Your task to perform on an android device: install app "Adobe Express: Graphic Design" Image 0: 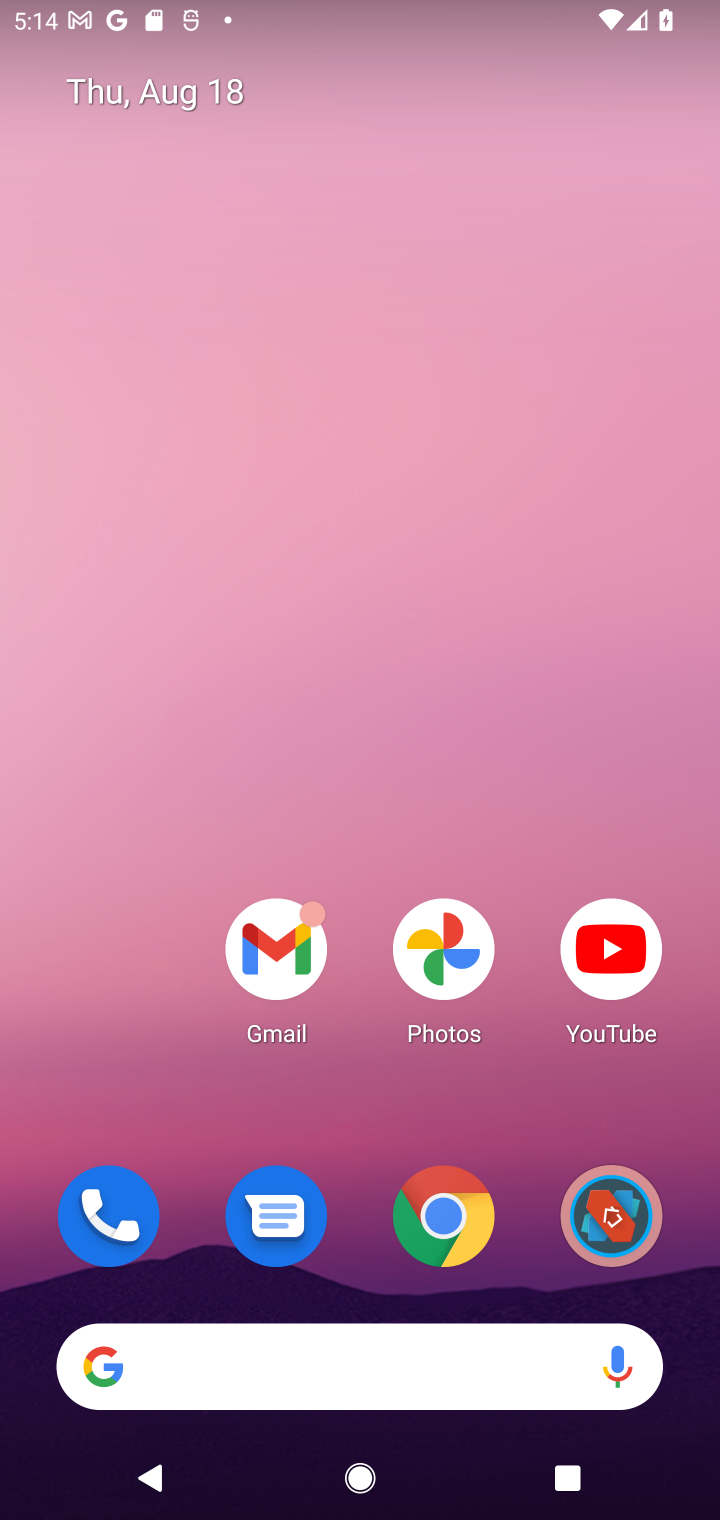
Step 0: drag from (532, 1284) to (499, 193)
Your task to perform on an android device: install app "Adobe Express: Graphic Design" Image 1: 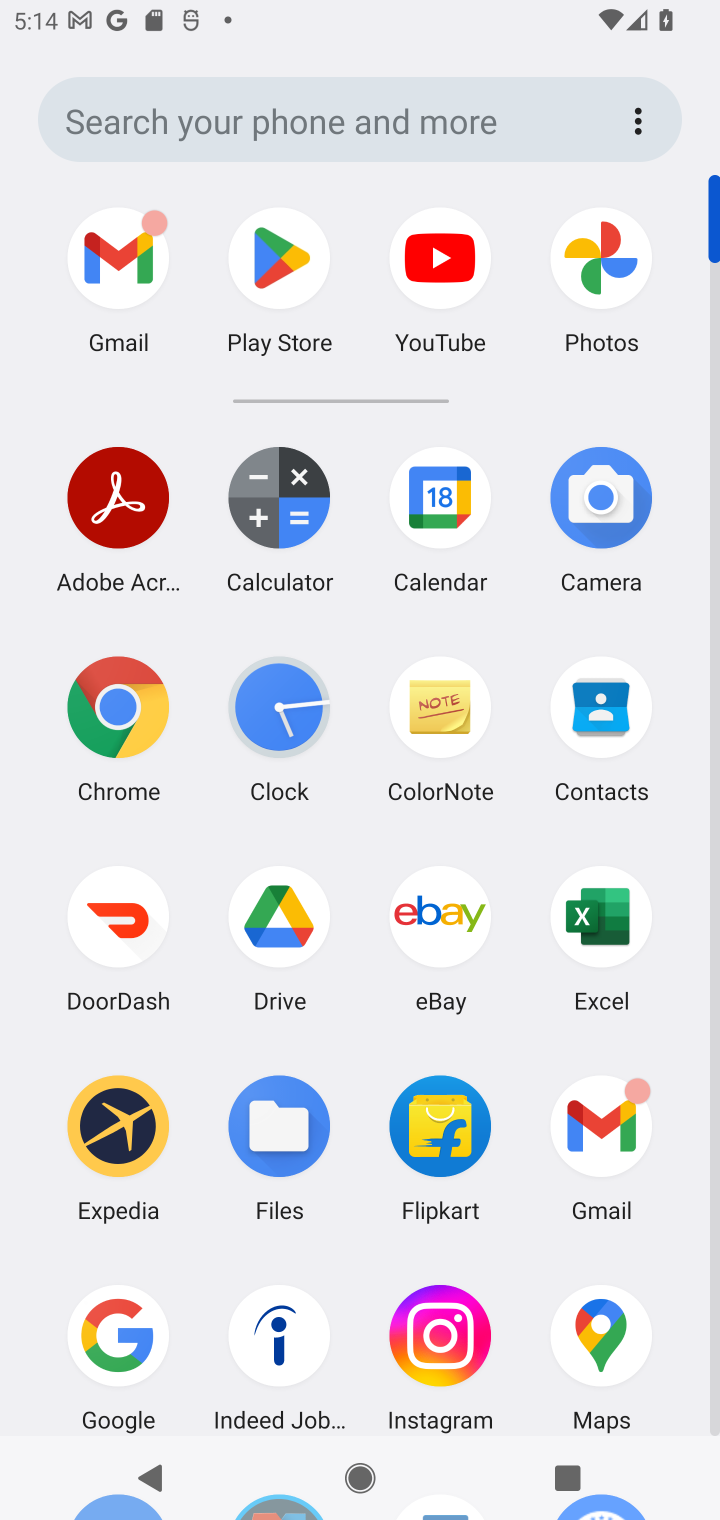
Step 1: drag from (526, 1266) to (498, 475)
Your task to perform on an android device: install app "Adobe Express: Graphic Design" Image 2: 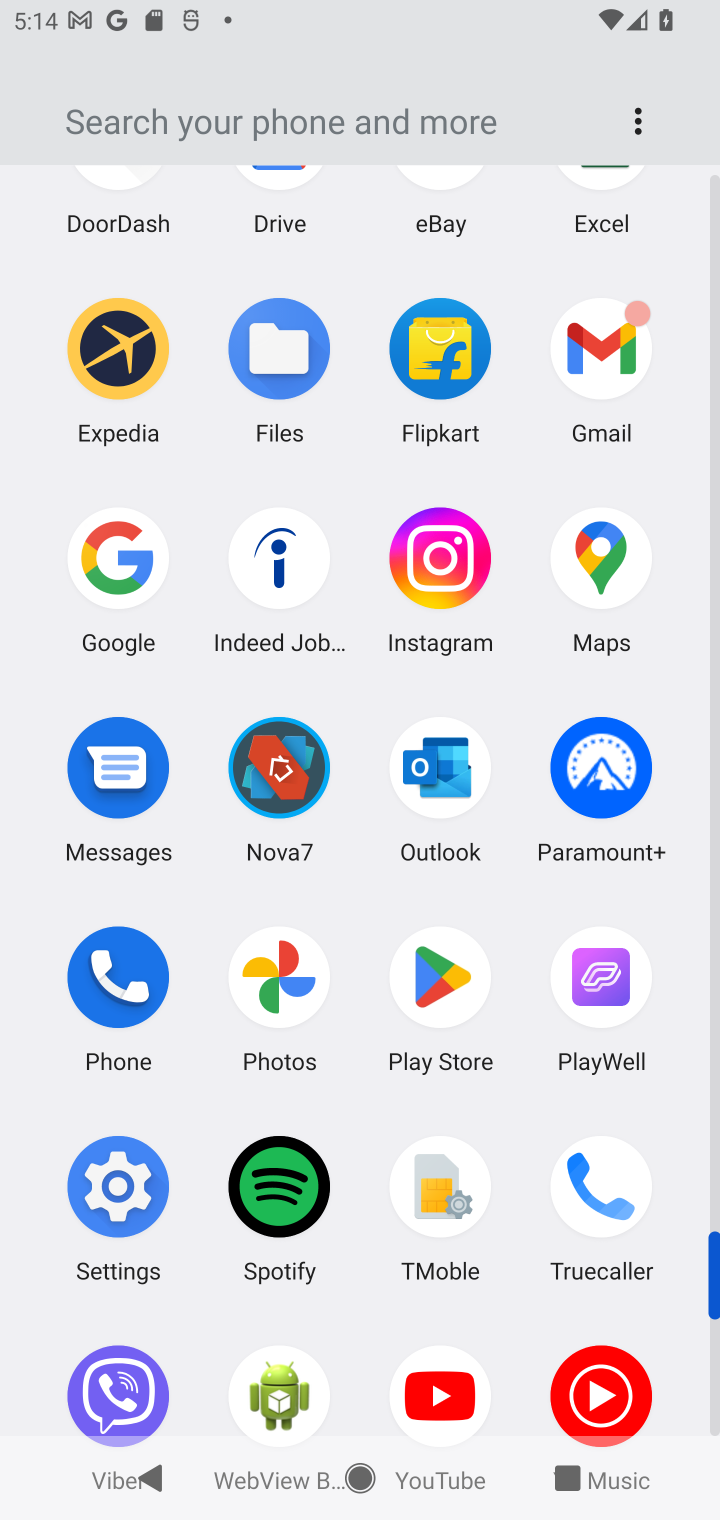
Step 2: click (440, 979)
Your task to perform on an android device: install app "Adobe Express: Graphic Design" Image 3: 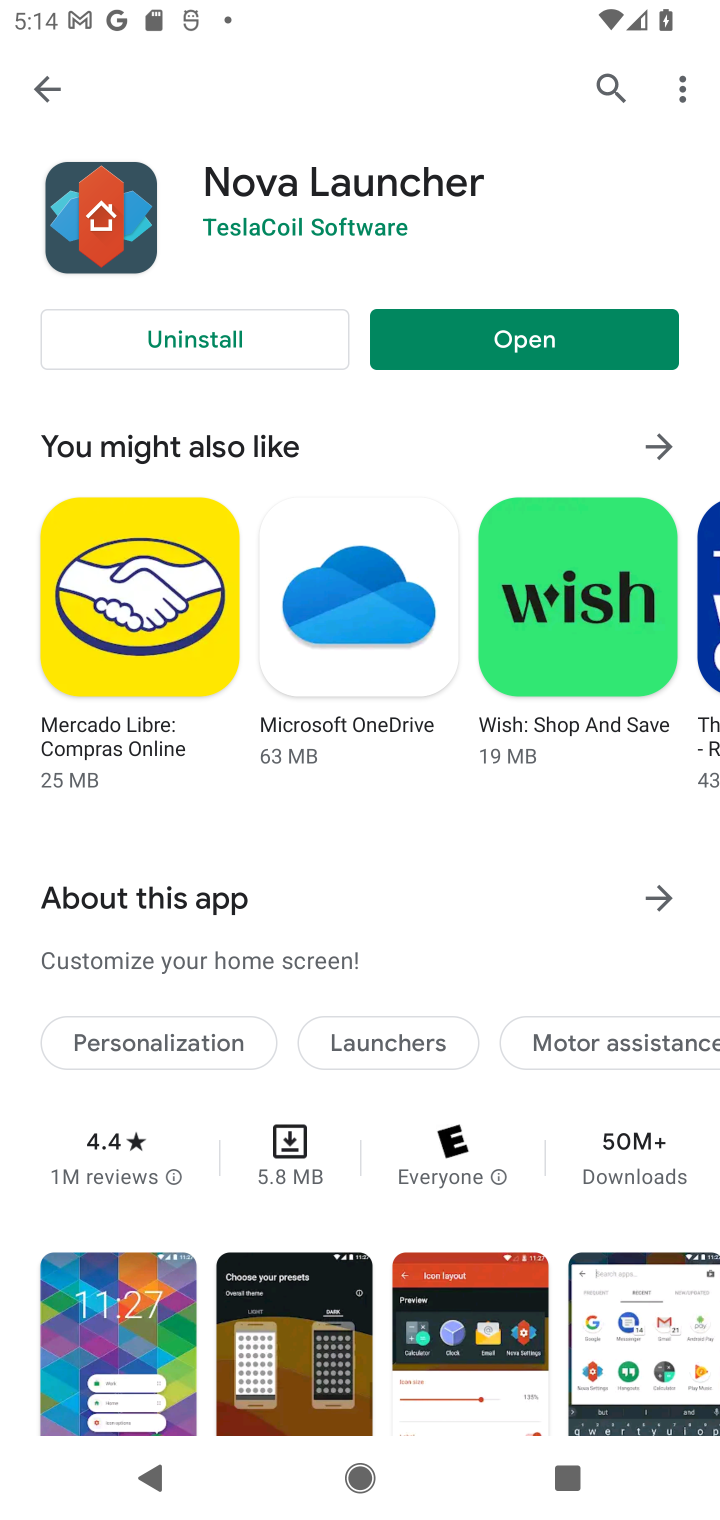
Step 3: click (603, 85)
Your task to perform on an android device: install app "Adobe Express: Graphic Design" Image 4: 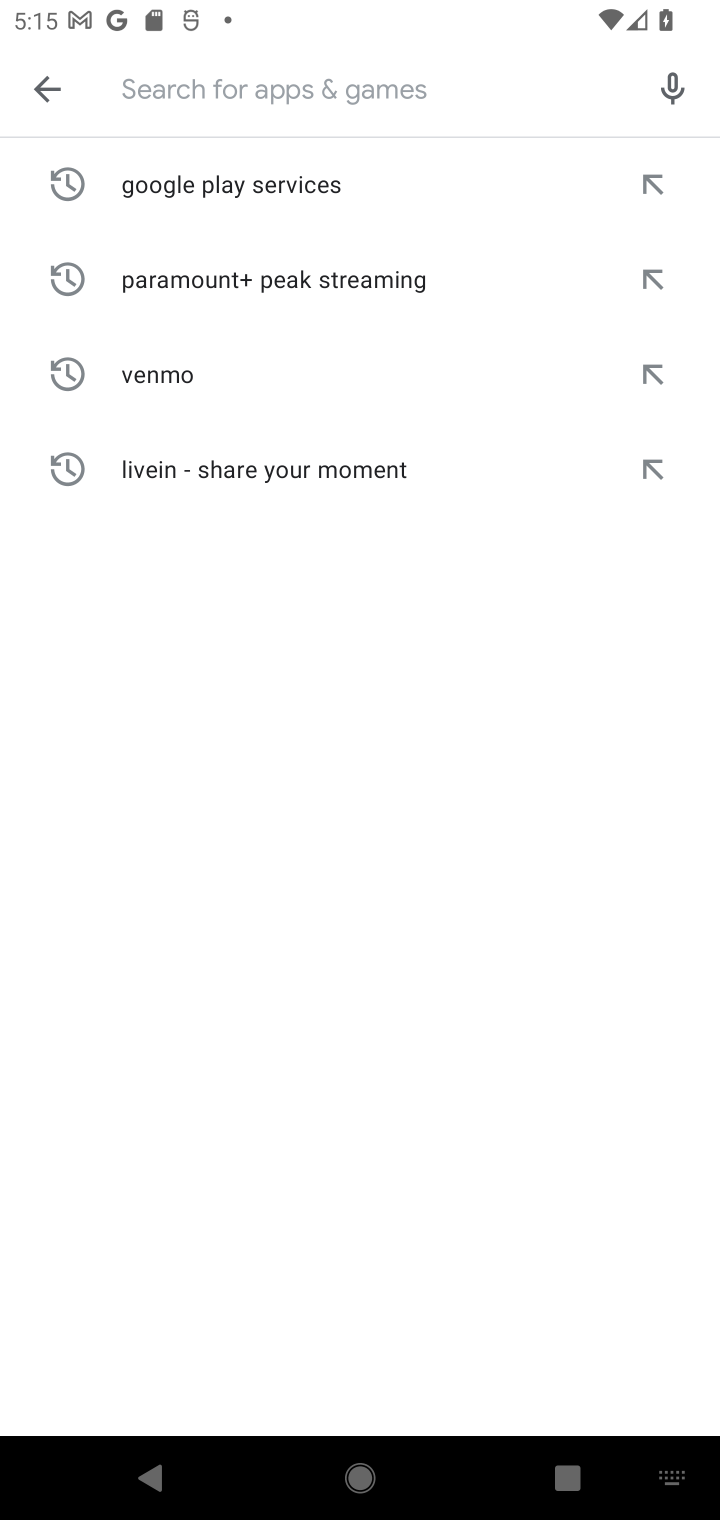
Step 4: type "Adobe Express: Graphic Design"
Your task to perform on an android device: install app "Adobe Express: Graphic Design" Image 5: 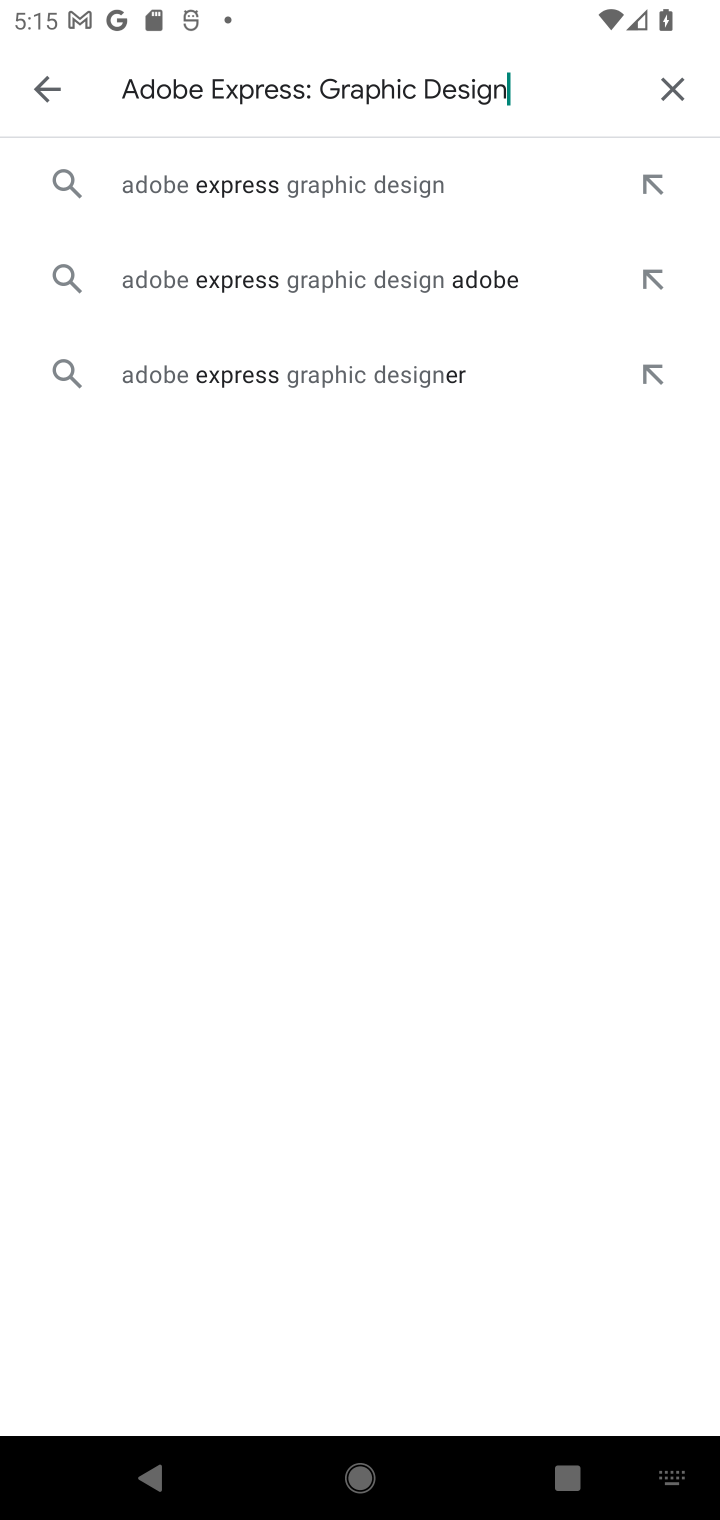
Step 5: click (240, 160)
Your task to perform on an android device: install app "Adobe Express: Graphic Design" Image 6: 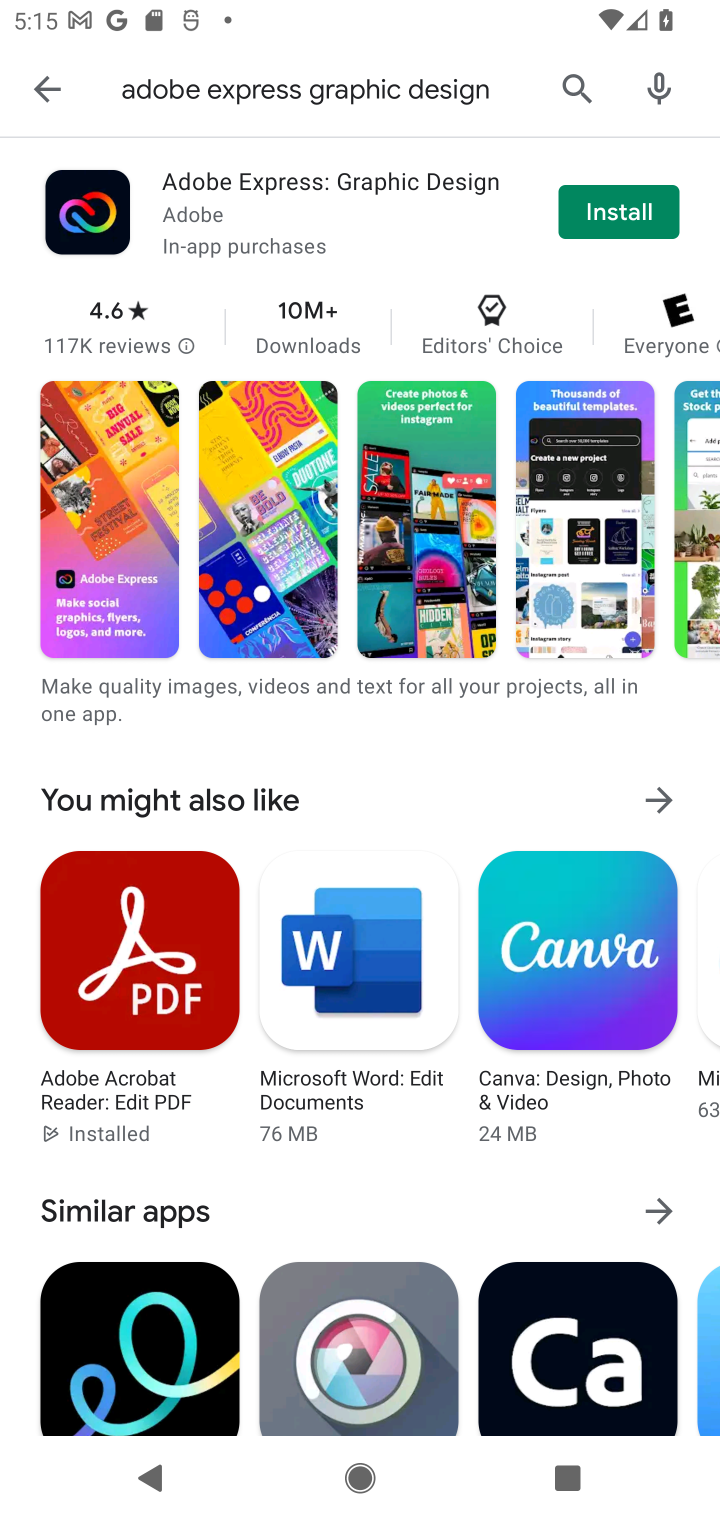
Step 6: click (612, 207)
Your task to perform on an android device: install app "Adobe Express: Graphic Design" Image 7: 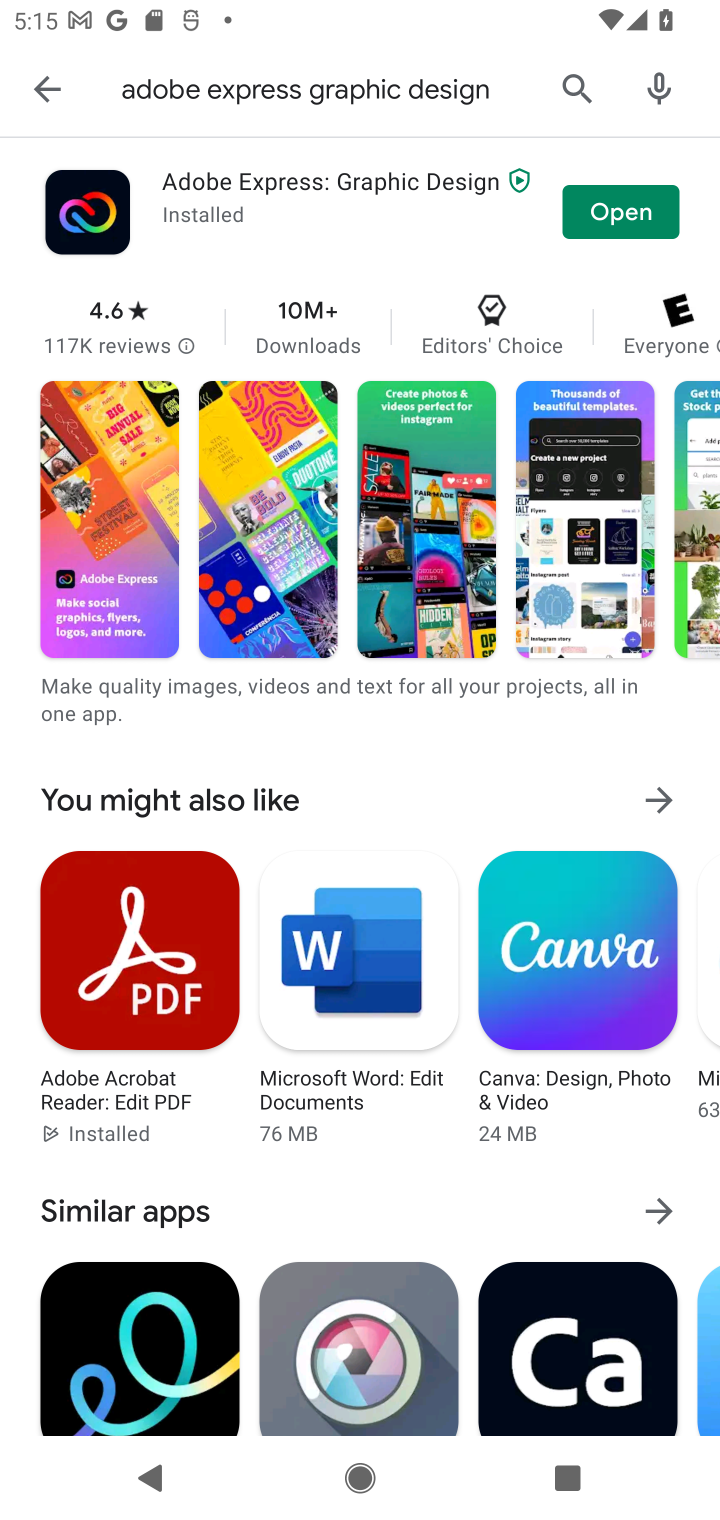
Step 7: task complete